Your task to perform on an android device: Open display settings Image 0: 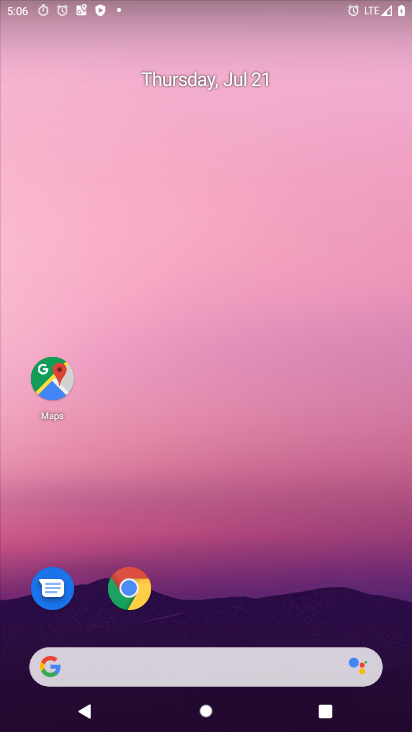
Step 0: drag from (258, 549) to (289, 80)
Your task to perform on an android device: Open display settings Image 1: 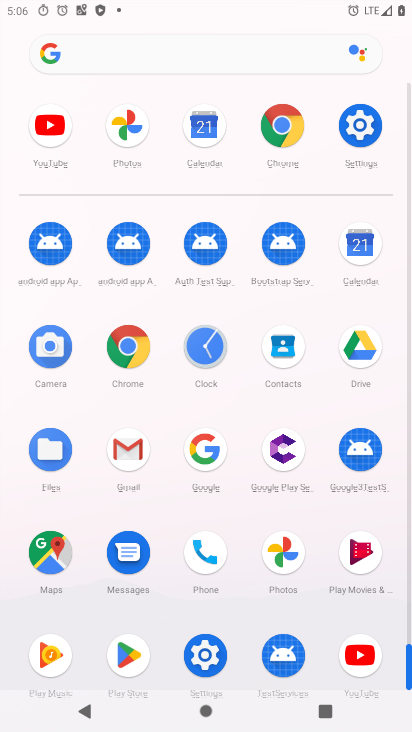
Step 1: click (198, 656)
Your task to perform on an android device: Open display settings Image 2: 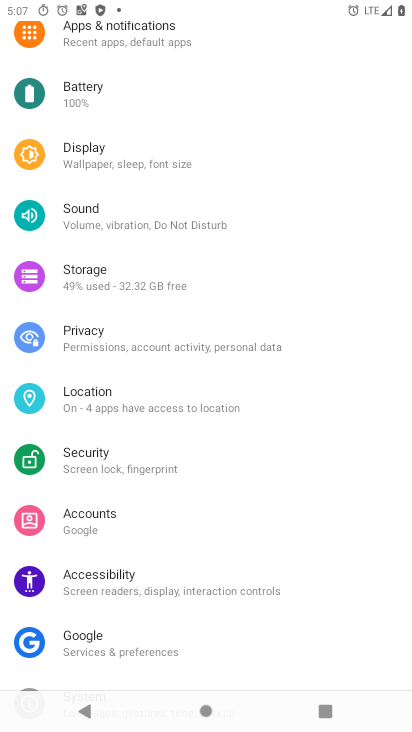
Step 2: click (87, 147)
Your task to perform on an android device: Open display settings Image 3: 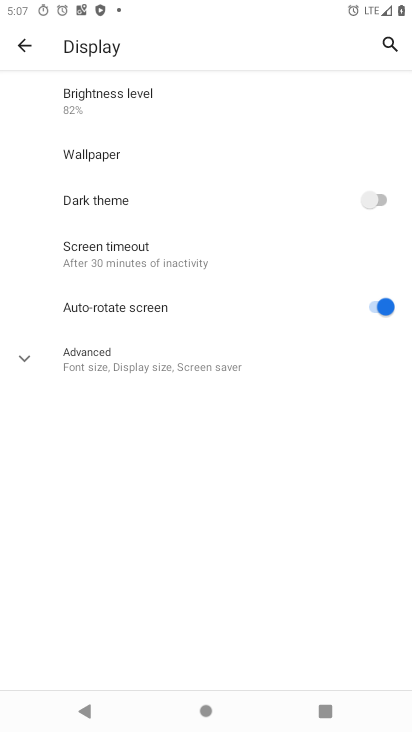
Step 3: task complete